Your task to perform on an android device: Open Youtube and go to "Your channel" Image 0: 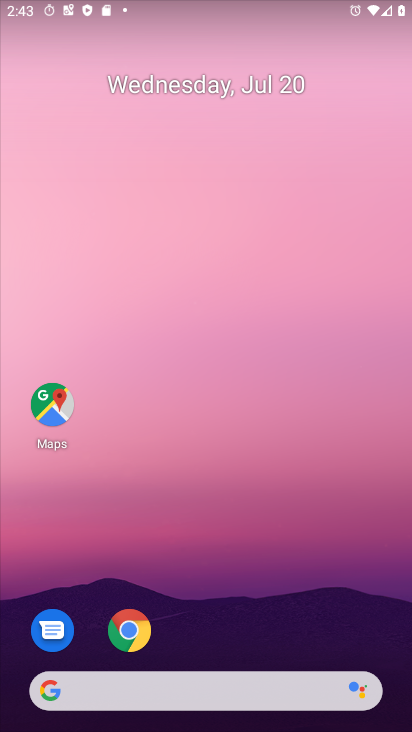
Step 0: drag from (139, 700) to (306, 241)
Your task to perform on an android device: Open Youtube and go to "Your channel" Image 1: 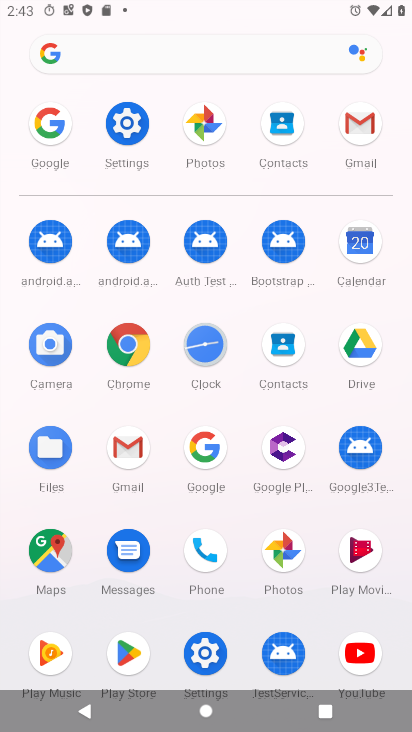
Step 1: click (358, 647)
Your task to perform on an android device: Open Youtube and go to "Your channel" Image 2: 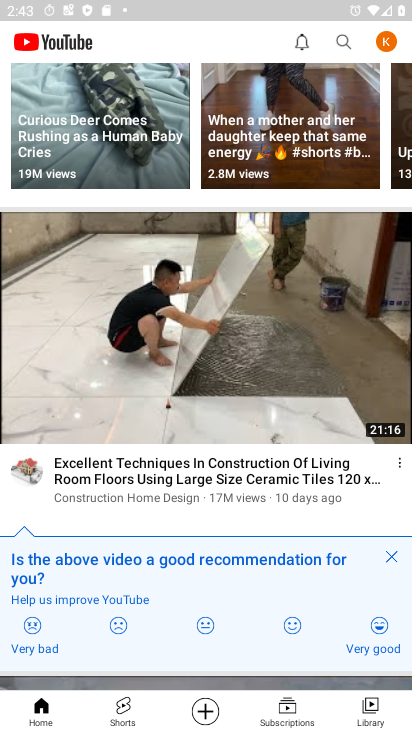
Step 2: click (384, 37)
Your task to perform on an android device: Open Youtube and go to "Your channel" Image 3: 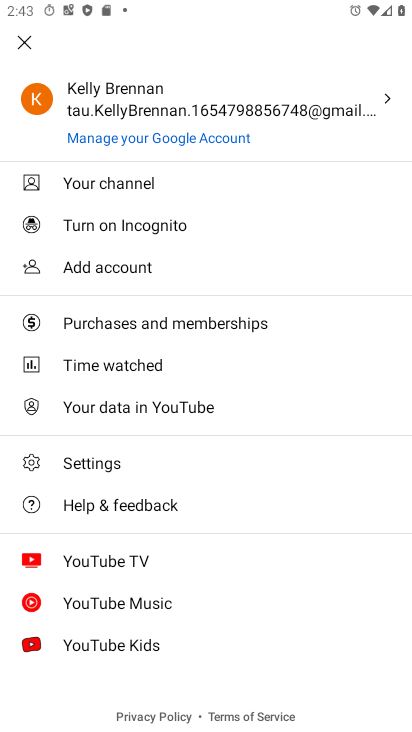
Step 3: click (119, 184)
Your task to perform on an android device: Open Youtube and go to "Your channel" Image 4: 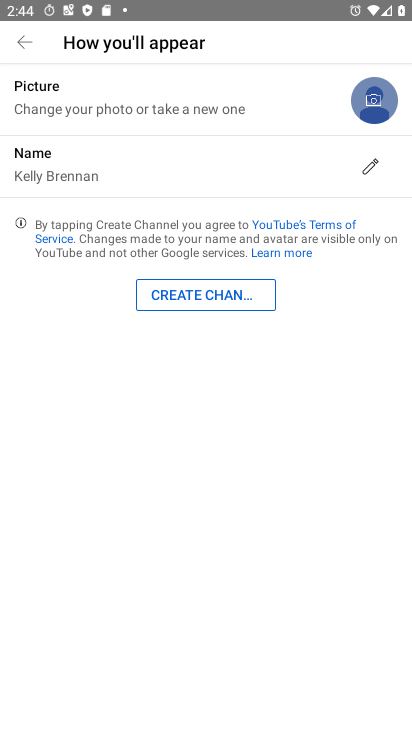
Step 4: task complete